Your task to perform on an android device: Open calendar and show me the third week of next month Image 0: 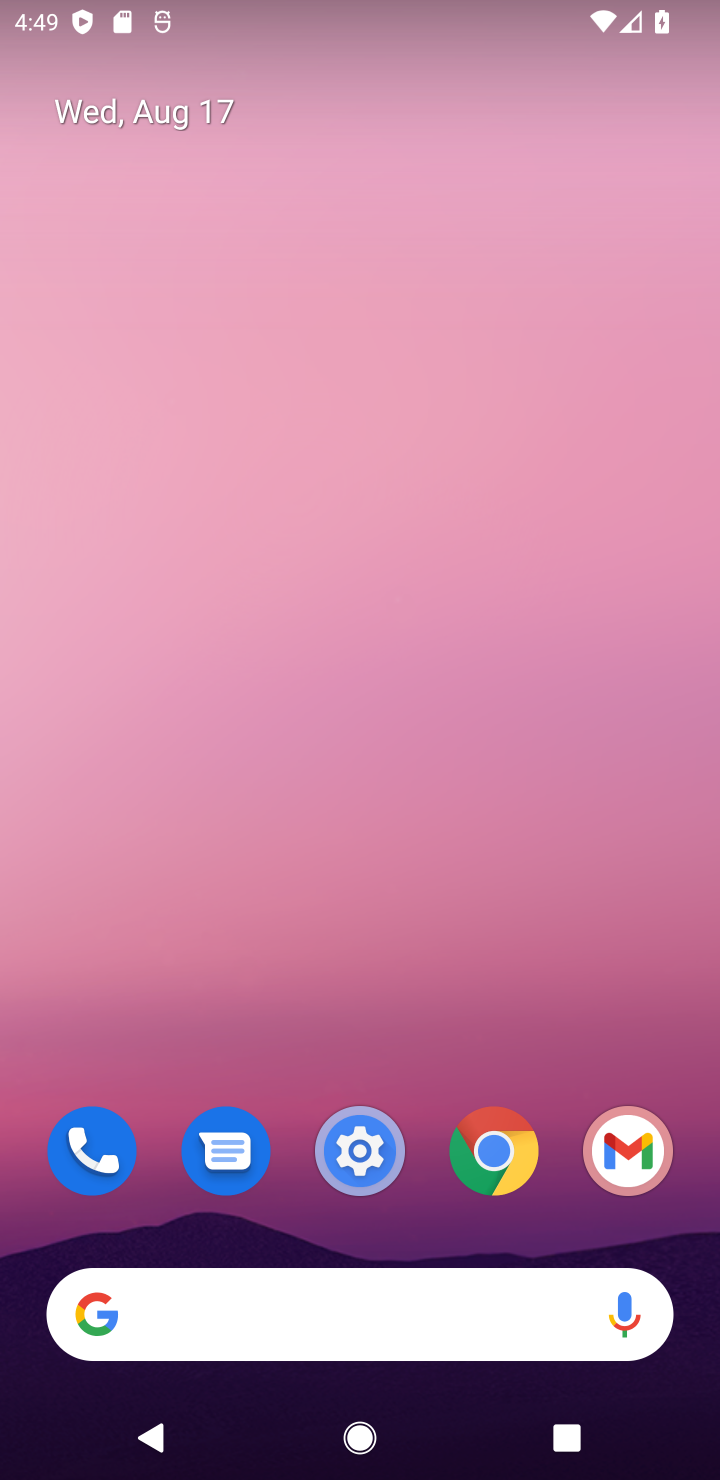
Step 0: drag from (414, 1240) to (440, 60)
Your task to perform on an android device: Open calendar and show me the third week of next month Image 1: 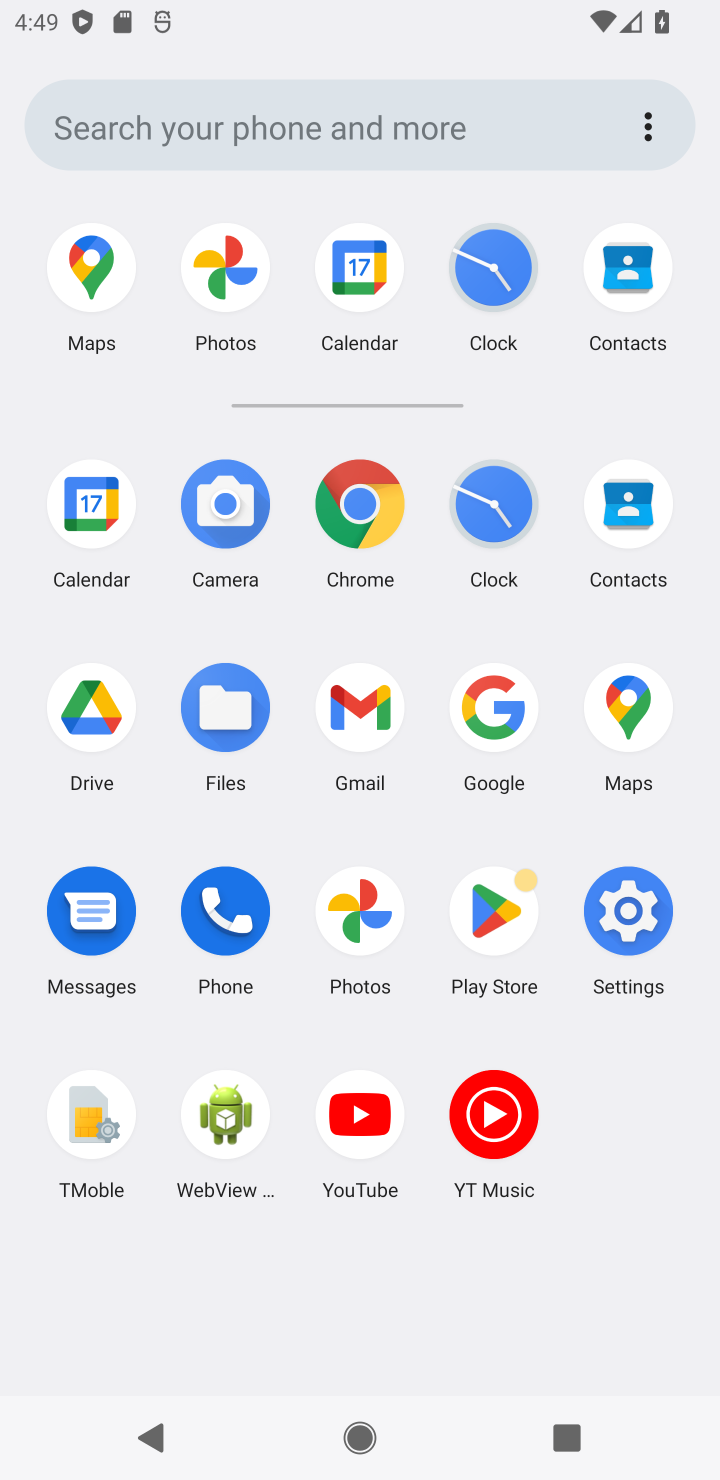
Step 1: click (111, 549)
Your task to perform on an android device: Open calendar and show me the third week of next month Image 2: 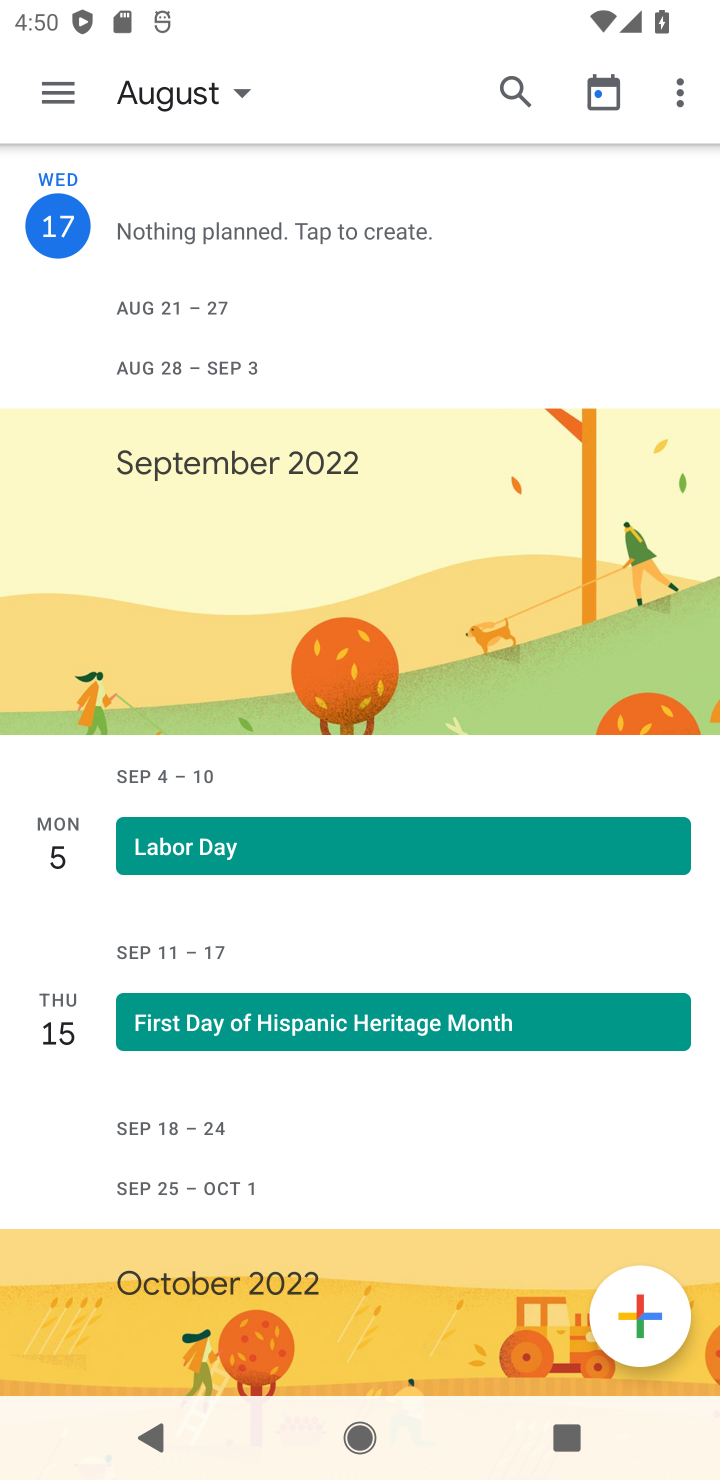
Step 2: task complete